Your task to perform on an android device: refresh tabs in the chrome app Image 0: 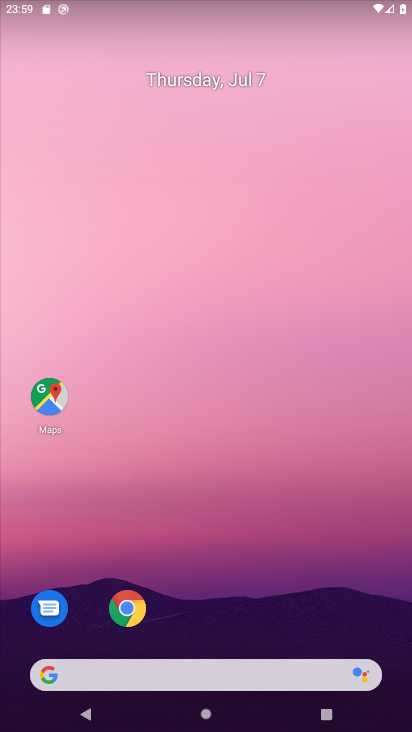
Step 0: drag from (189, 628) to (186, 251)
Your task to perform on an android device: refresh tabs in the chrome app Image 1: 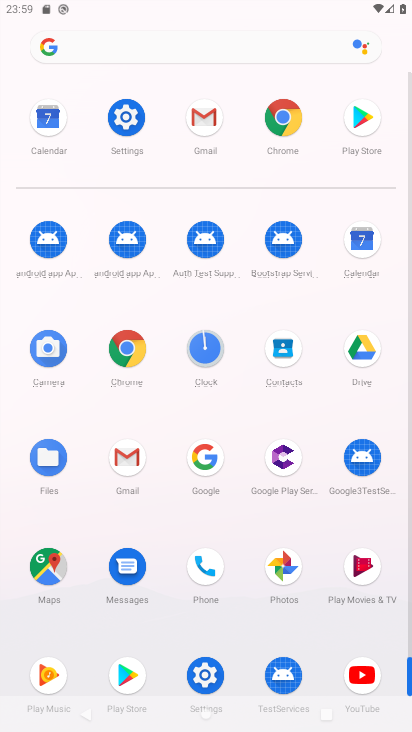
Step 1: click (124, 342)
Your task to perform on an android device: refresh tabs in the chrome app Image 2: 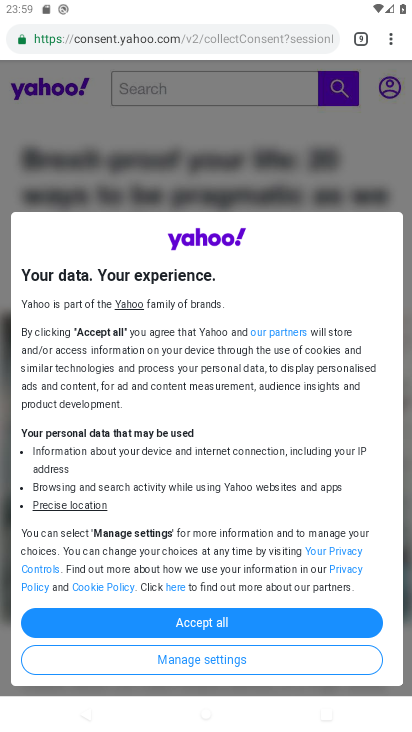
Step 2: click (388, 41)
Your task to perform on an android device: refresh tabs in the chrome app Image 3: 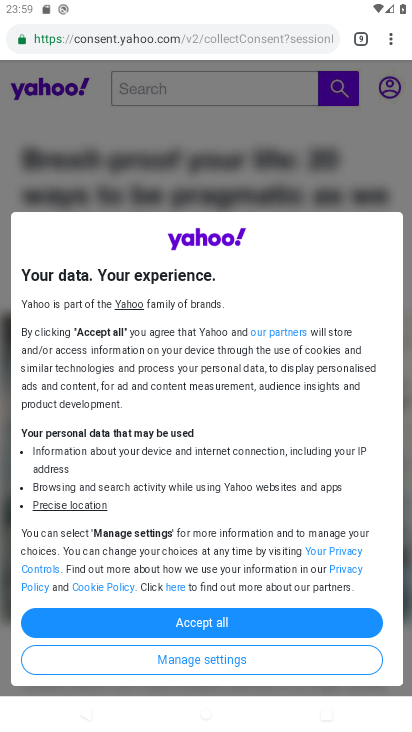
Step 3: click (388, 41)
Your task to perform on an android device: refresh tabs in the chrome app Image 4: 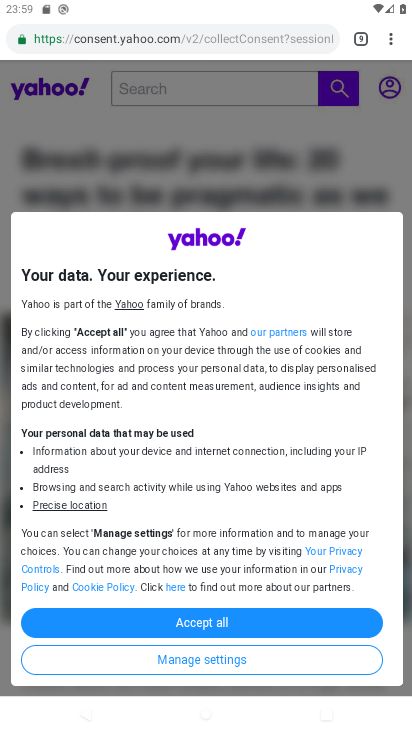
Step 4: click (388, 41)
Your task to perform on an android device: refresh tabs in the chrome app Image 5: 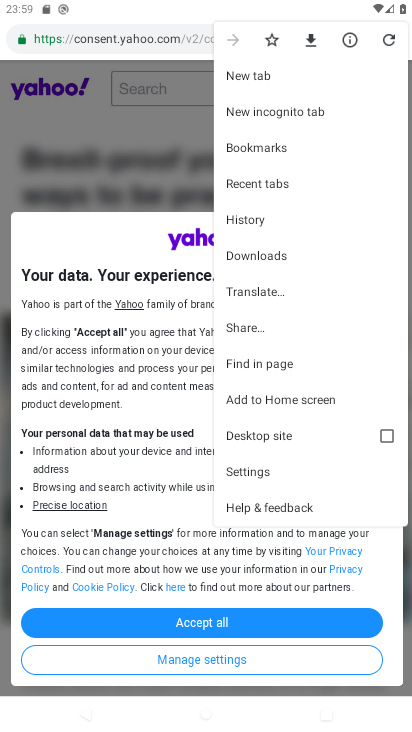
Step 5: click (386, 41)
Your task to perform on an android device: refresh tabs in the chrome app Image 6: 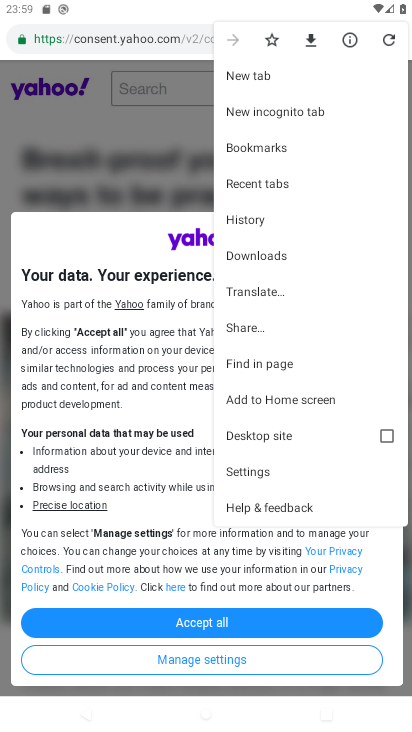
Step 6: click (388, 32)
Your task to perform on an android device: refresh tabs in the chrome app Image 7: 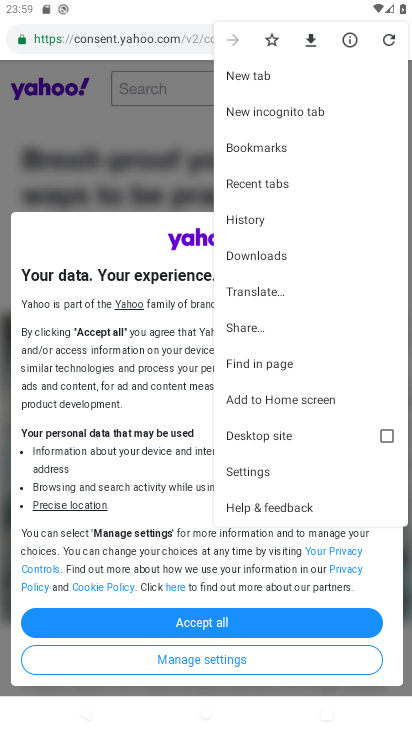
Step 7: task complete